Your task to perform on an android device: turn on priority inbox in the gmail app Image 0: 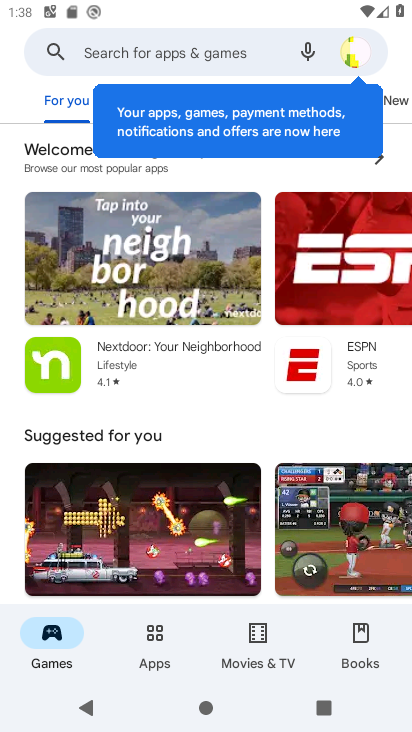
Step 0: press home button
Your task to perform on an android device: turn on priority inbox in the gmail app Image 1: 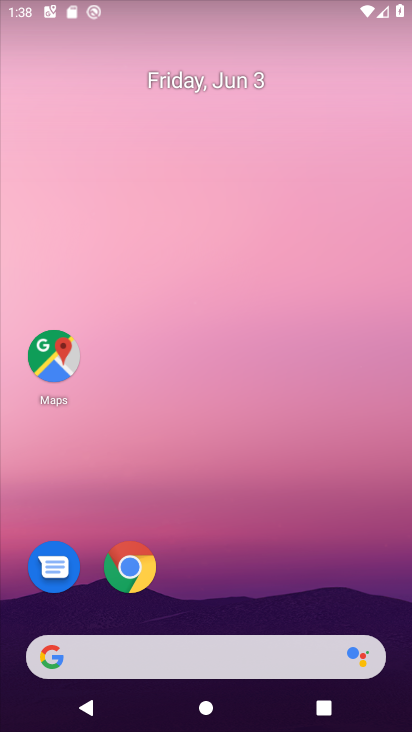
Step 1: drag from (109, 589) to (163, 224)
Your task to perform on an android device: turn on priority inbox in the gmail app Image 2: 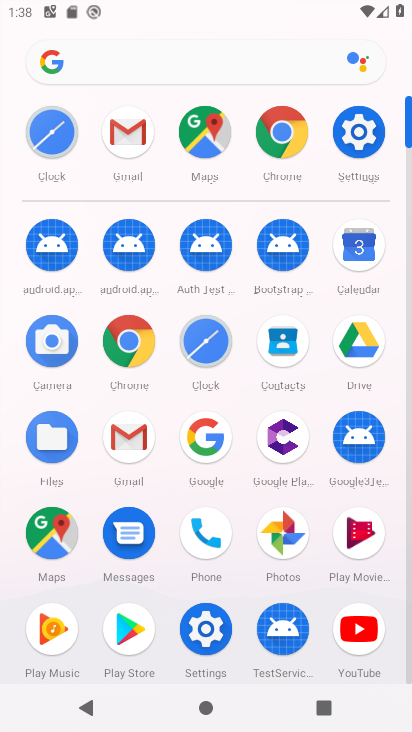
Step 2: click (132, 428)
Your task to perform on an android device: turn on priority inbox in the gmail app Image 3: 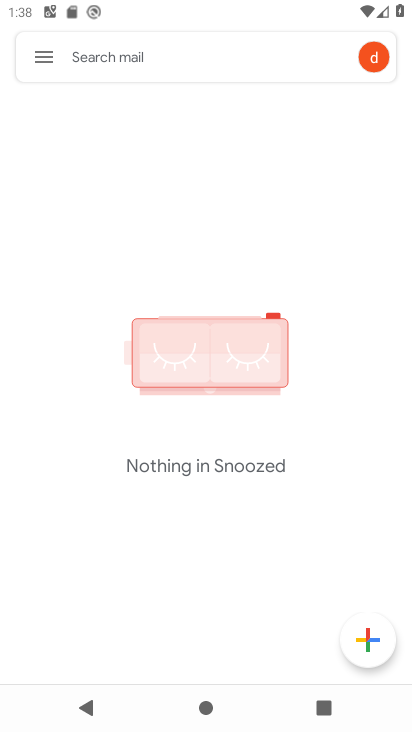
Step 3: click (42, 63)
Your task to perform on an android device: turn on priority inbox in the gmail app Image 4: 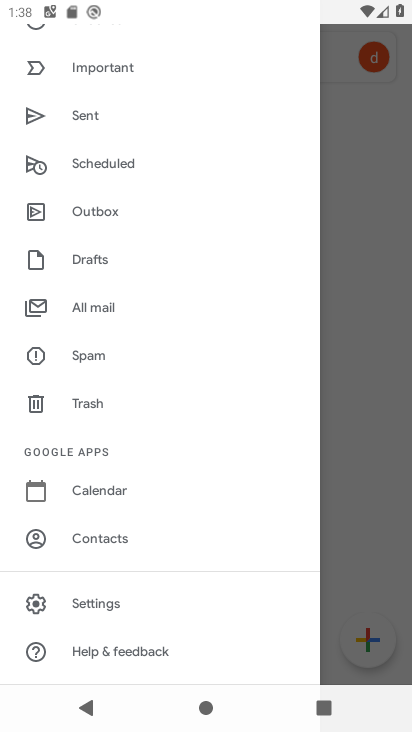
Step 4: click (112, 602)
Your task to perform on an android device: turn on priority inbox in the gmail app Image 5: 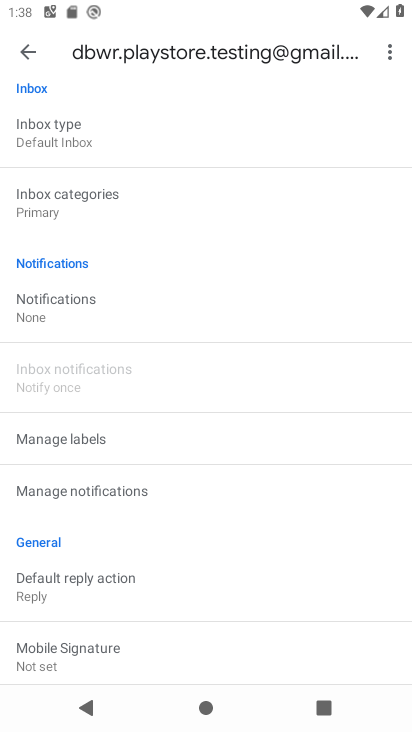
Step 5: drag from (90, 216) to (102, 580)
Your task to perform on an android device: turn on priority inbox in the gmail app Image 6: 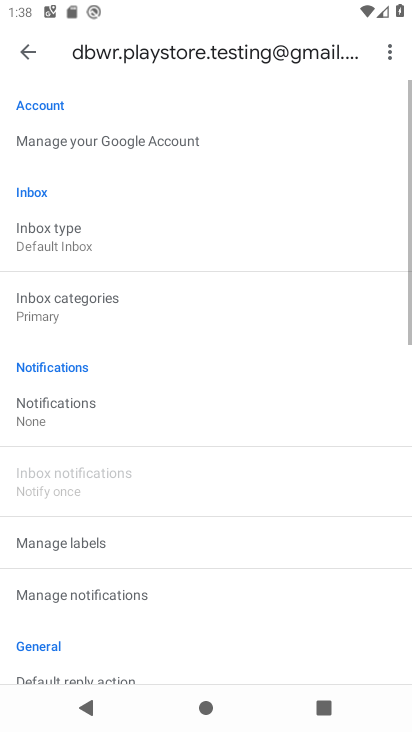
Step 6: click (51, 228)
Your task to perform on an android device: turn on priority inbox in the gmail app Image 7: 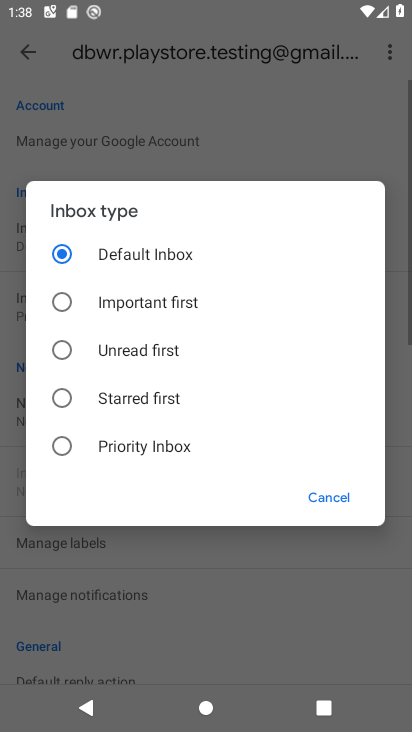
Step 7: click (108, 456)
Your task to perform on an android device: turn on priority inbox in the gmail app Image 8: 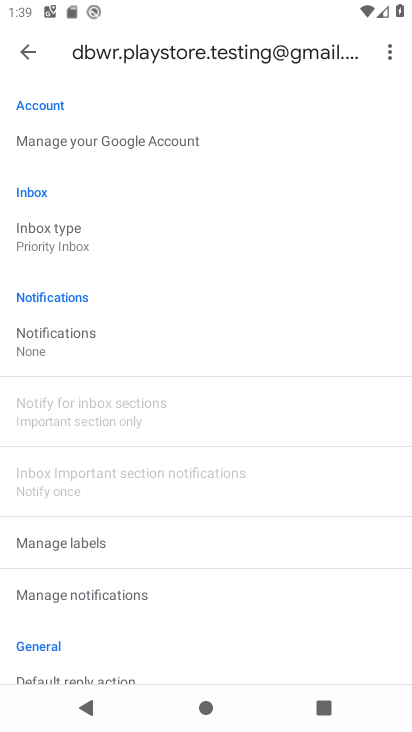
Step 8: task complete